Your task to perform on an android device: open a new tab in the chrome app Image 0: 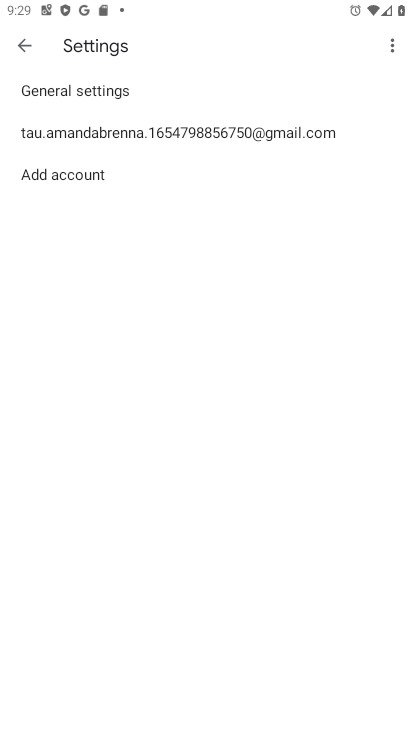
Step 0: press home button
Your task to perform on an android device: open a new tab in the chrome app Image 1: 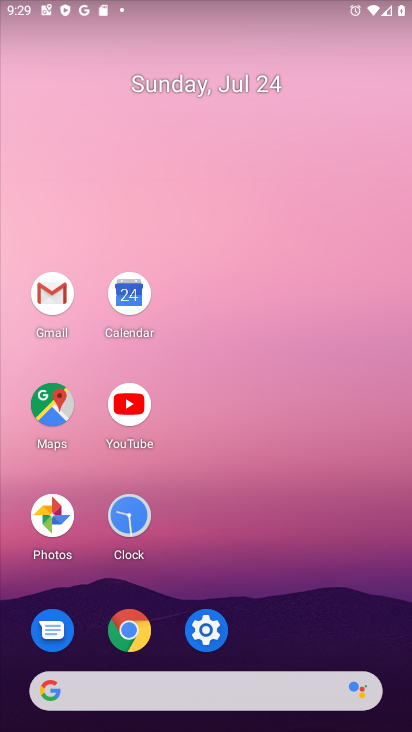
Step 1: click (128, 634)
Your task to perform on an android device: open a new tab in the chrome app Image 2: 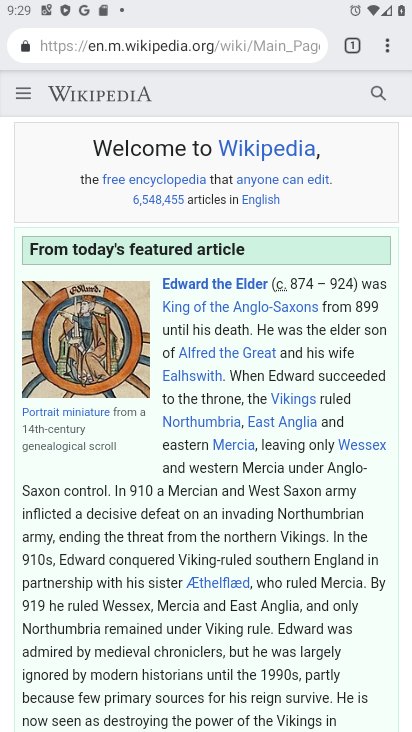
Step 2: click (389, 44)
Your task to perform on an android device: open a new tab in the chrome app Image 3: 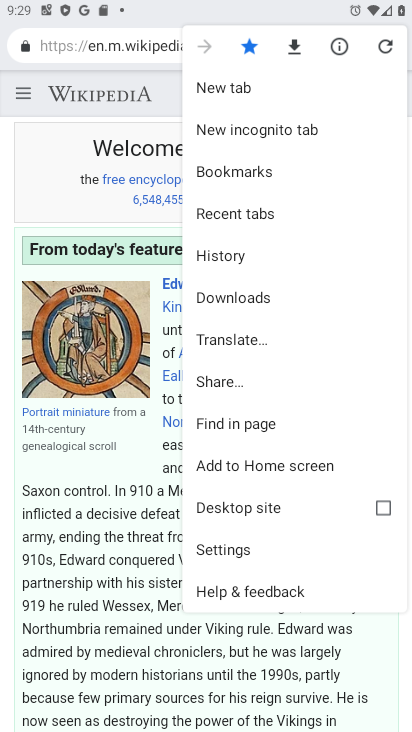
Step 3: click (226, 82)
Your task to perform on an android device: open a new tab in the chrome app Image 4: 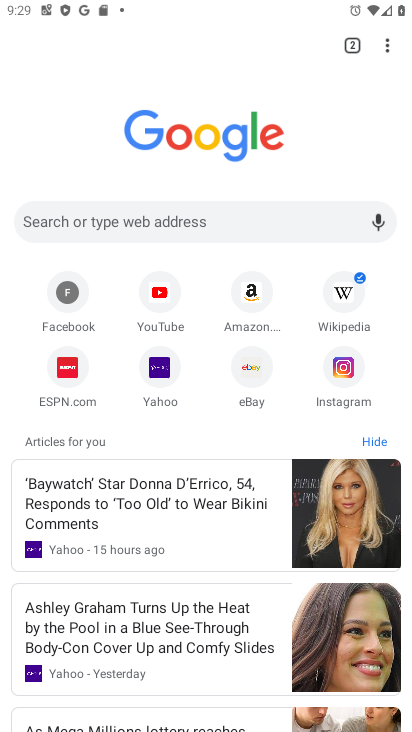
Step 4: task complete